Your task to perform on an android device: turn off wifi Image 0: 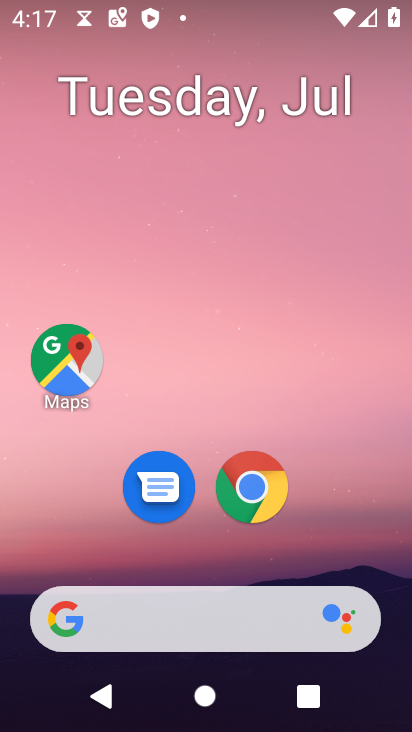
Step 0: drag from (167, 257) to (172, 601)
Your task to perform on an android device: turn off wifi Image 1: 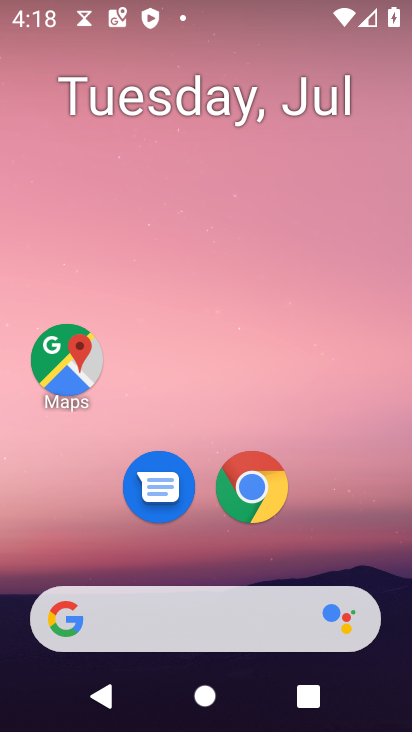
Step 1: drag from (165, 13) to (181, 529)
Your task to perform on an android device: turn off wifi Image 2: 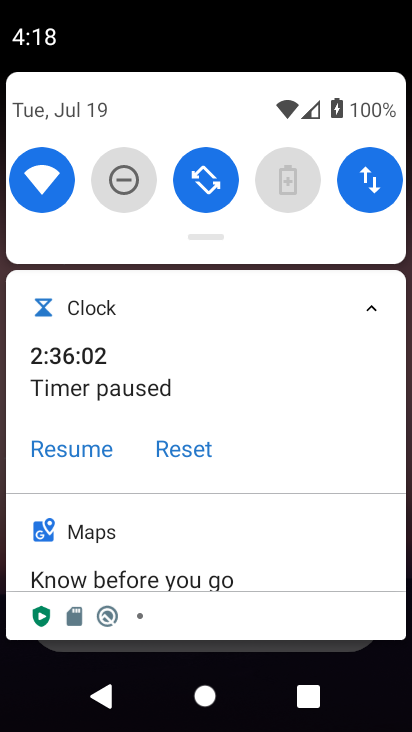
Step 2: click (47, 177)
Your task to perform on an android device: turn off wifi Image 3: 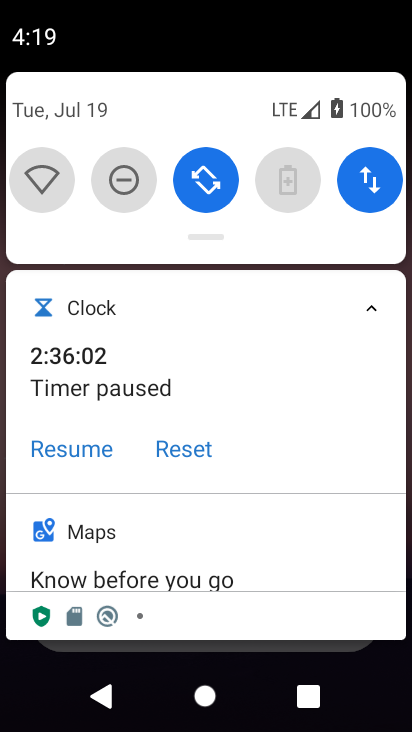
Step 3: task complete